Your task to perform on an android device: Open settings Image 0: 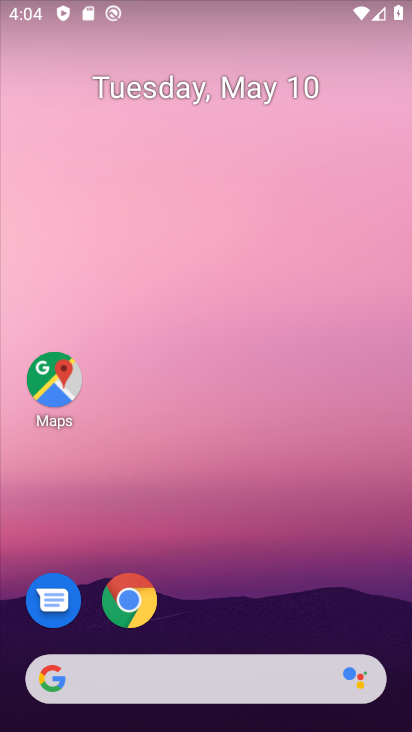
Step 0: drag from (256, 582) to (314, 6)
Your task to perform on an android device: Open settings Image 1: 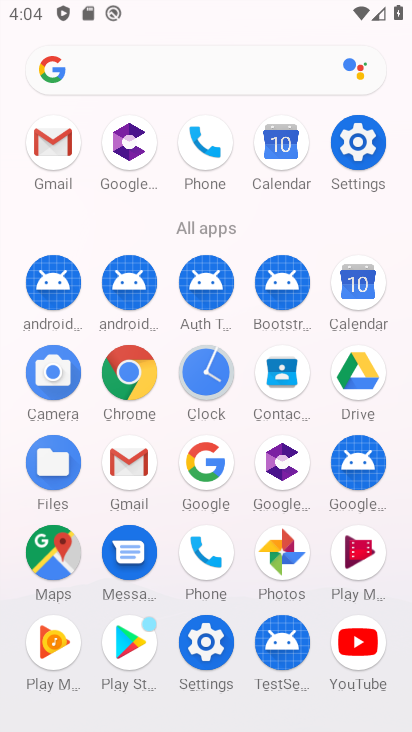
Step 1: click (367, 163)
Your task to perform on an android device: Open settings Image 2: 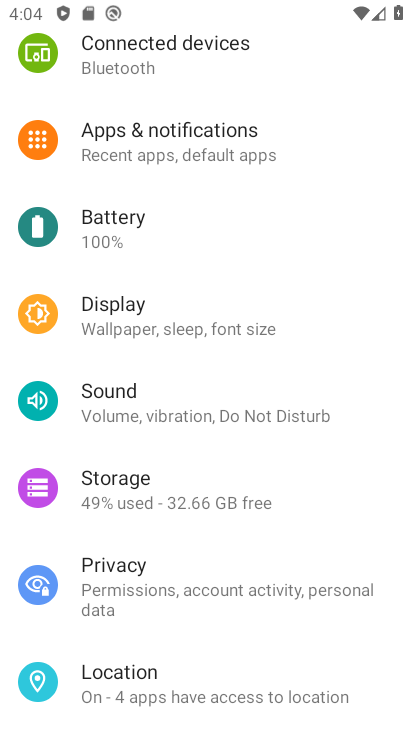
Step 2: task complete